Your task to perform on an android device: Show me recent news Image 0: 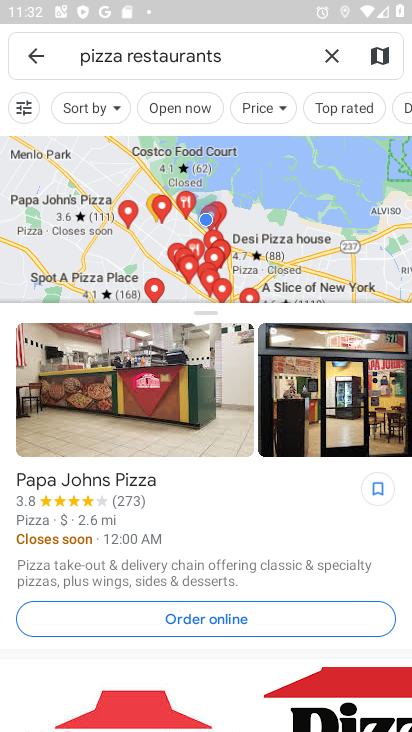
Step 0: press home button
Your task to perform on an android device: Show me recent news Image 1: 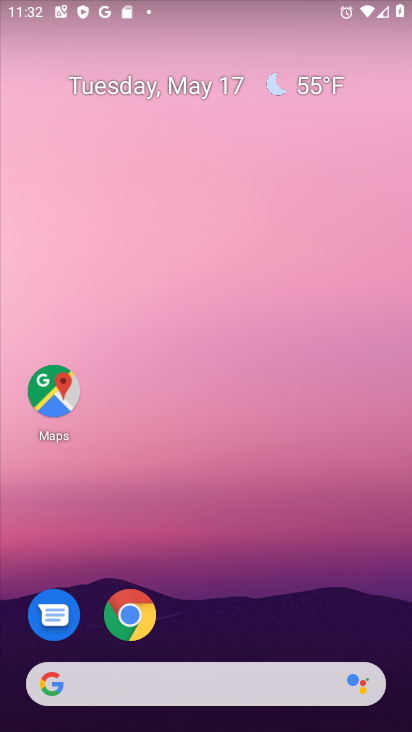
Step 1: drag from (309, 628) to (342, 80)
Your task to perform on an android device: Show me recent news Image 2: 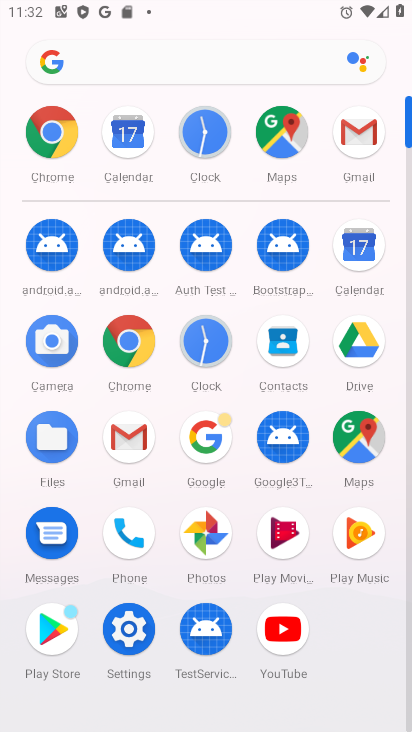
Step 2: click (122, 341)
Your task to perform on an android device: Show me recent news Image 3: 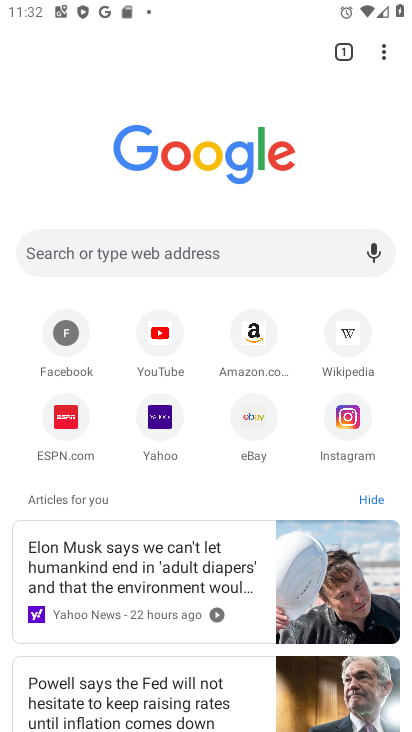
Step 3: click (198, 242)
Your task to perform on an android device: Show me recent news Image 4: 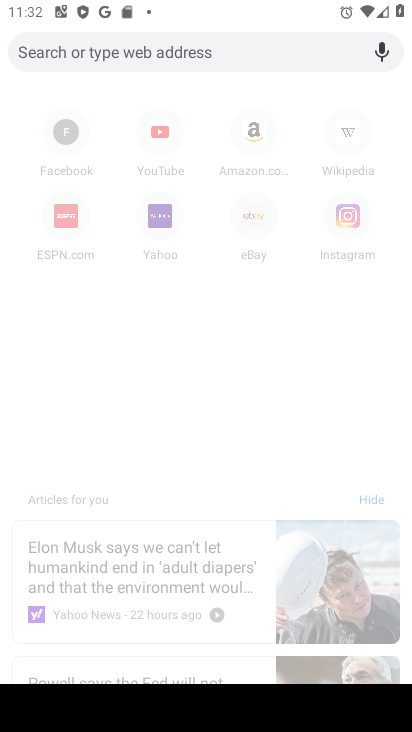
Step 4: type "news"
Your task to perform on an android device: Show me recent news Image 5: 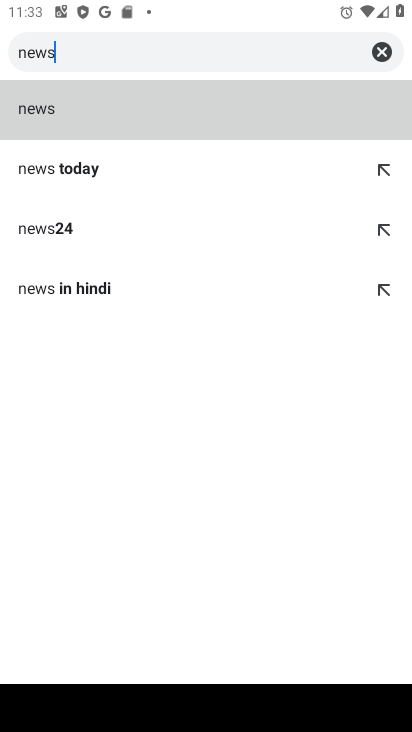
Step 5: click (50, 100)
Your task to perform on an android device: Show me recent news Image 6: 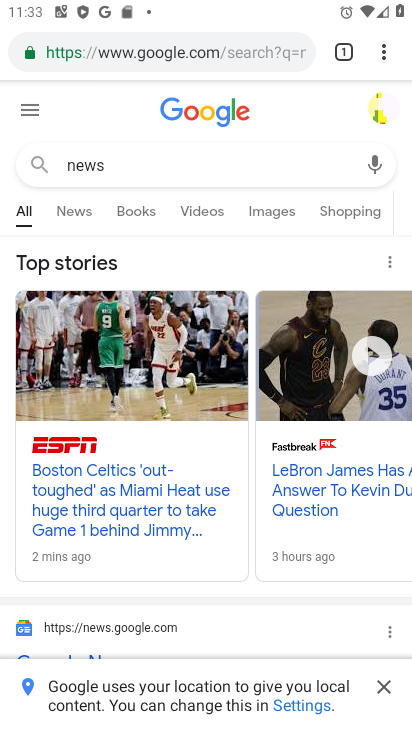
Step 6: click (74, 210)
Your task to perform on an android device: Show me recent news Image 7: 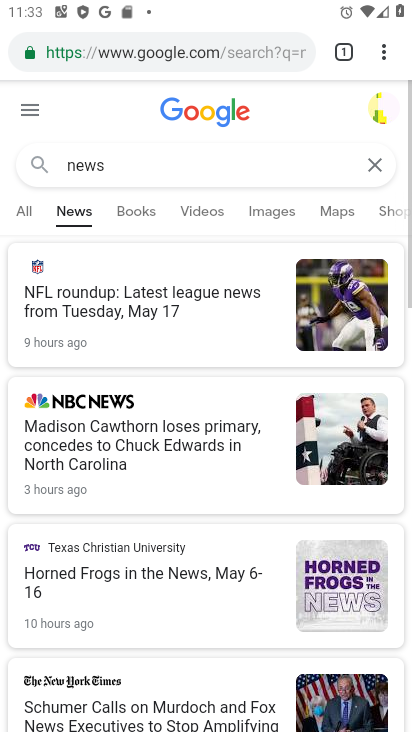
Step 7: task complete